Your task to perform on an android device: stop showing notifications on the lock screen Image 0: 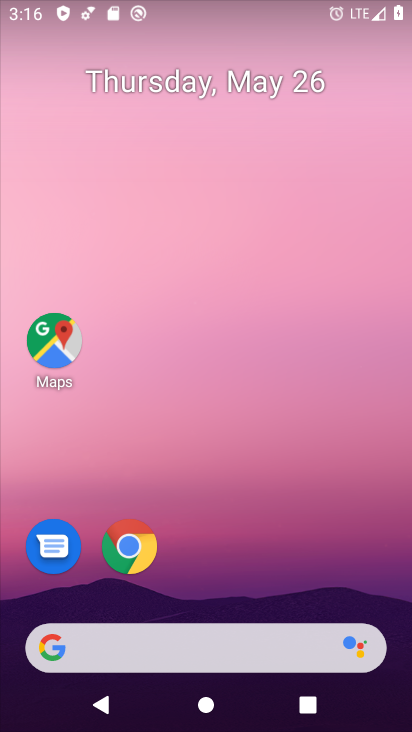
Step 0: drag from (237, 585) to (270, 123)
Your task to perform on an android device: stop showing notifications on the lock screen Image 1: 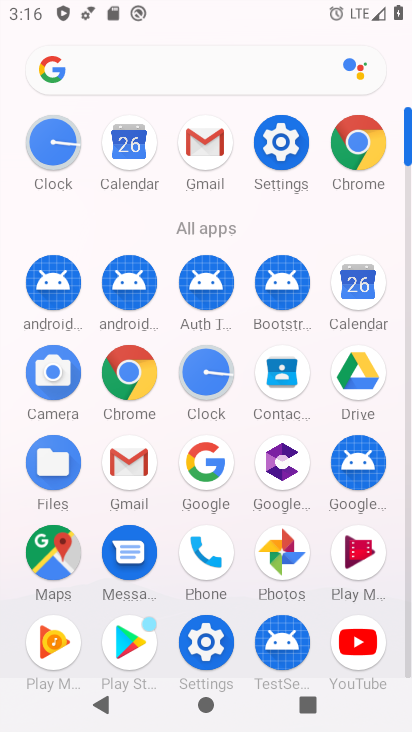
Step 1: click (283, 144)
Your task to perform on an android device: stop showing notifications on the lock screen Image 2: 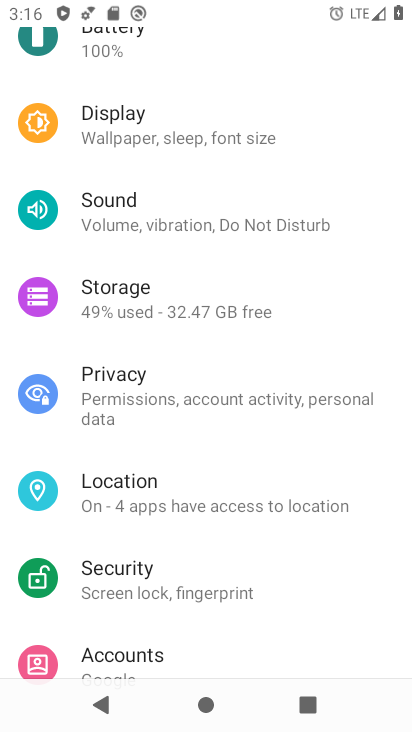
Step 2: drag from (199, 178) to (217, 677)
Your task to perform on an android device: stop showing notifications on the lock screen Image 3: 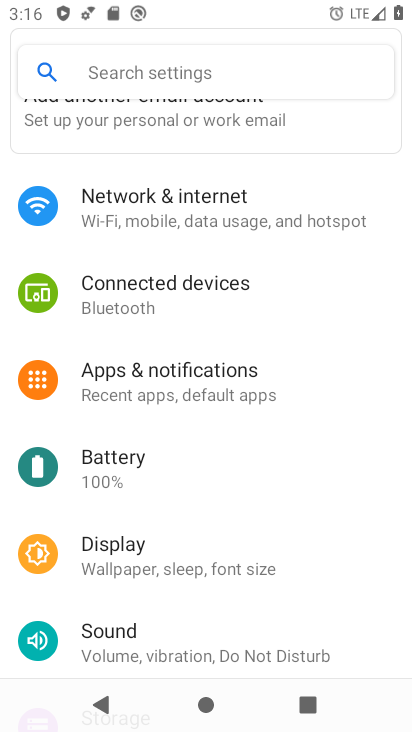
Step 3: click (176, 401)
Your task to perform on an android device: stop showing notifications on the lock screen Image 4: 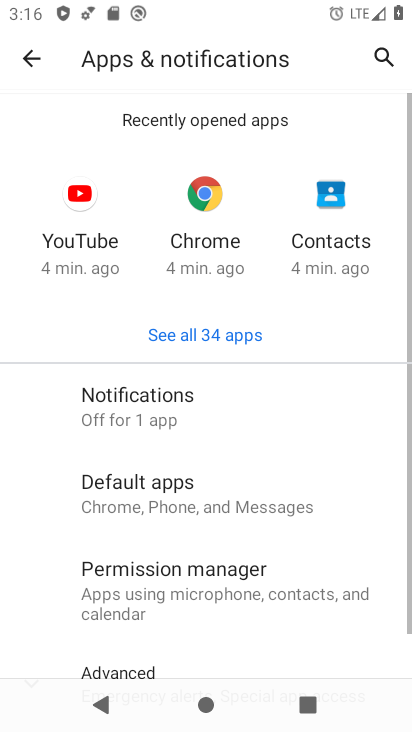
Step 4: drag from (201, 610) to (240, 95)
Your task to perform on an android device: stop showing notifications on the lock screen Image 5: 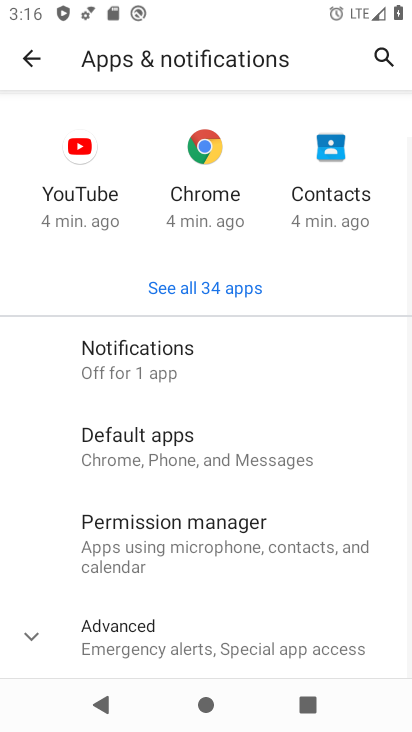
Step 5: click (193, 361)
Your task to perform on an android device: stop showing notifications on the lock screen Image 6: 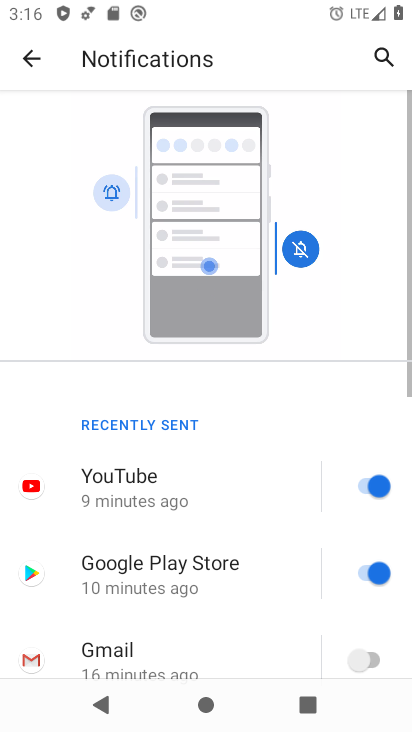
Step 6: drag from (186, 603) to (200, 91)
Your task to perform on an android device: stop showing notifications on the lock screen Image 7: 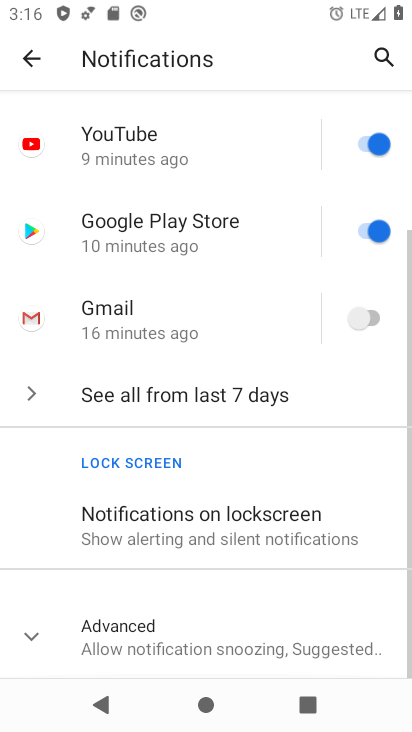
Step 7: click (199, 515)
Your task to perform on an android device: stop showing notifications on the lock screen Image 8: 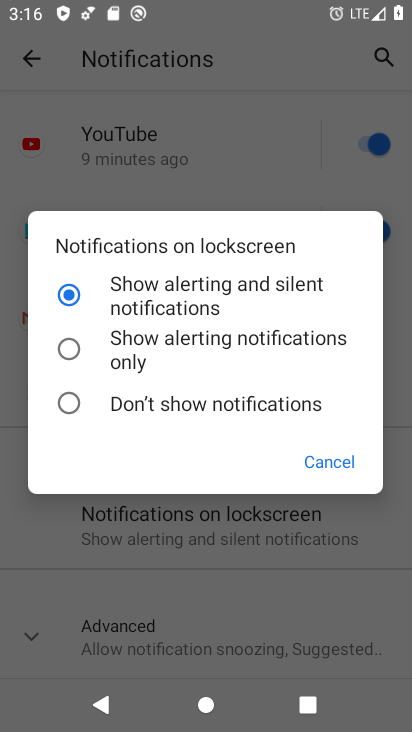
Step 8: click (115, 419)
Your task to perform on an android device: stop showing notifications on the lock screen Image 9: 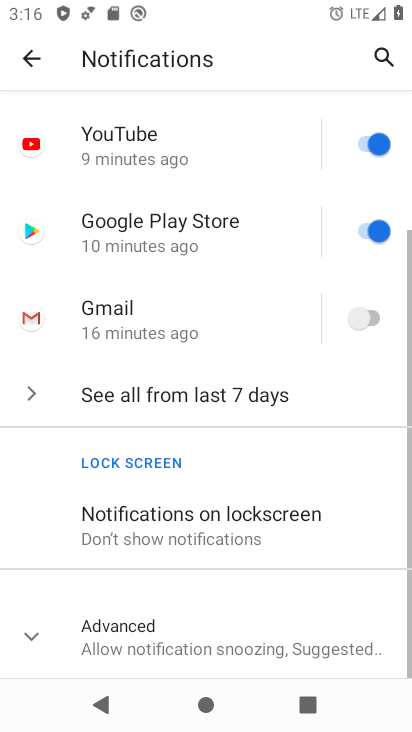
Step 9: task complete